Your task to perform on an android device: add a label to a message in the gmail app Image 0: 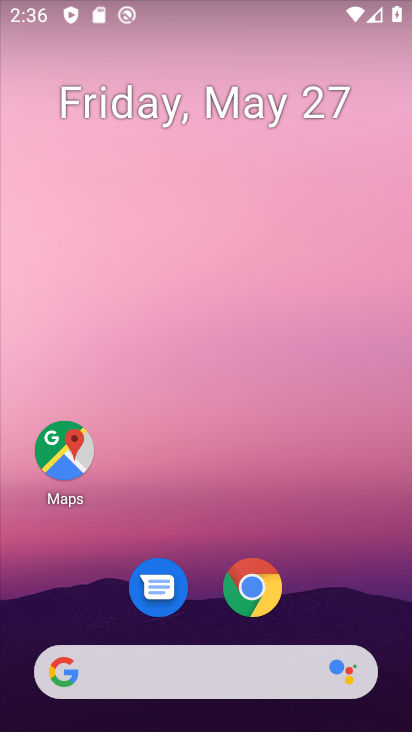
Step 0: drag from (126, 725) to (119, 32)
Your task to perform on an android device: add a label to a message in the gmail app Image 1: 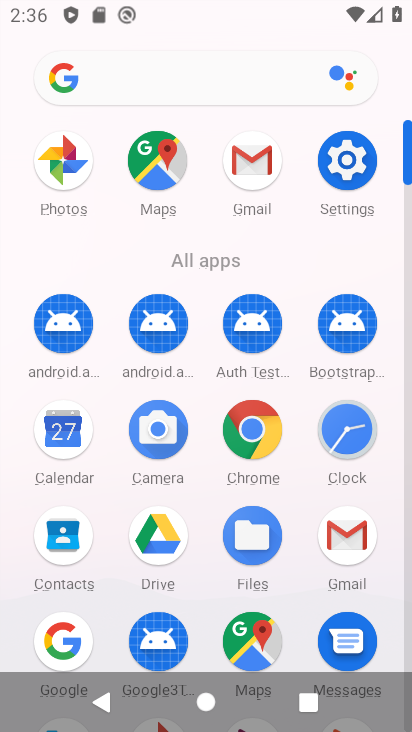
Step 1: click (254, 173)
Your task to perform on an android device: add a label to a message in the gmail app Image 2: 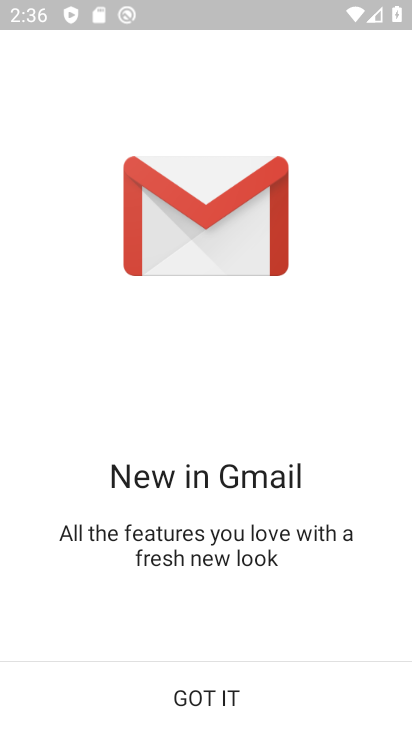
Step 2: click (172, 695)
Your task to perform on an android device: add a label to a message in the gmail app Image 3: 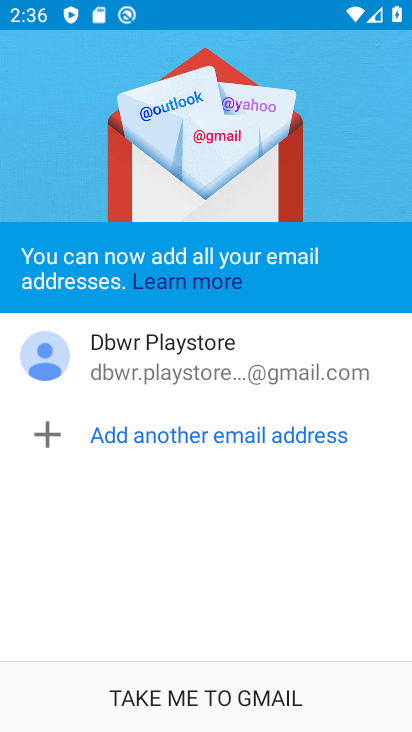
Step 3: click (177, 700)
Your task to perform on an android device: add a label to a message in the gmail app Image 4: 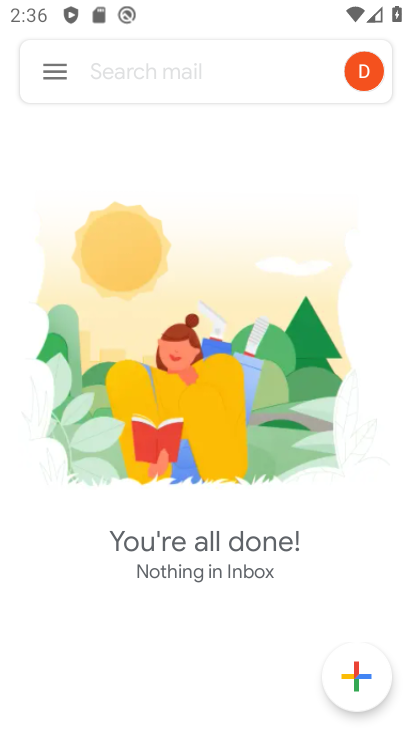
Step 4: click (39, 75)
Your task to perform on an android device: add a label to a message in the gmail app Image 5: 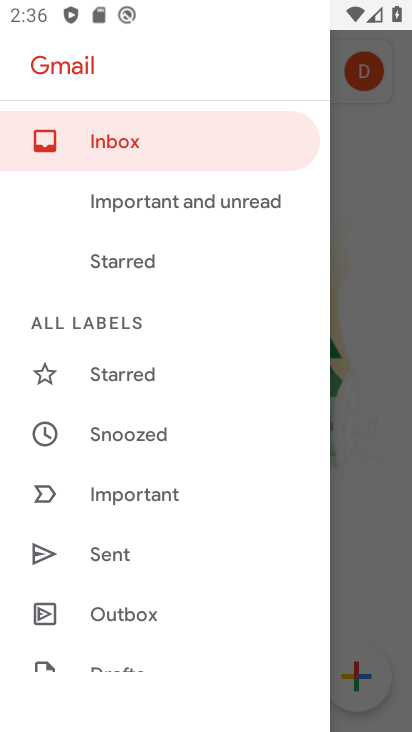
Step 5: drag from (214, 640) to (193, 218)
Your task to perform on an android device: add a label to a message in the gmail app Image 6: 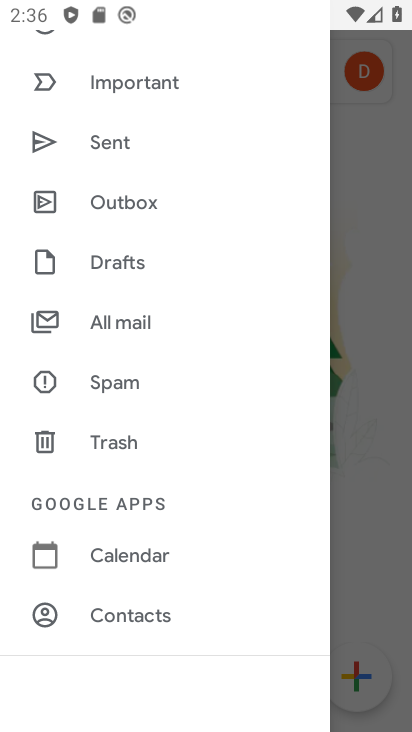
Step 6: click (104, 343)
Your task to perform on an android device: add a label to a message in the gmail app Image 7: 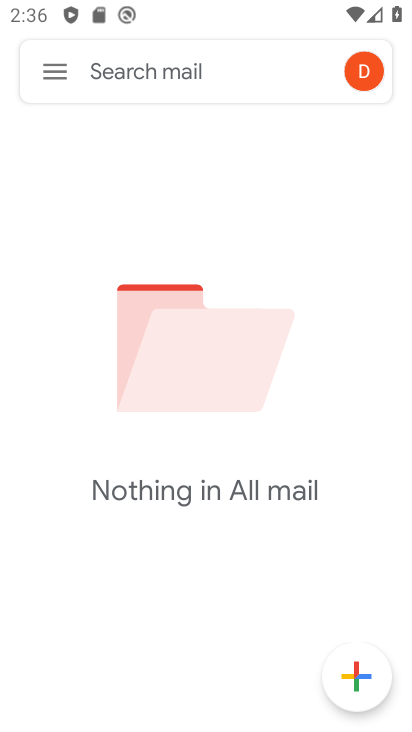
Step 7: task complete